Your task to perform on an android device: change keyboard looks Image 0: 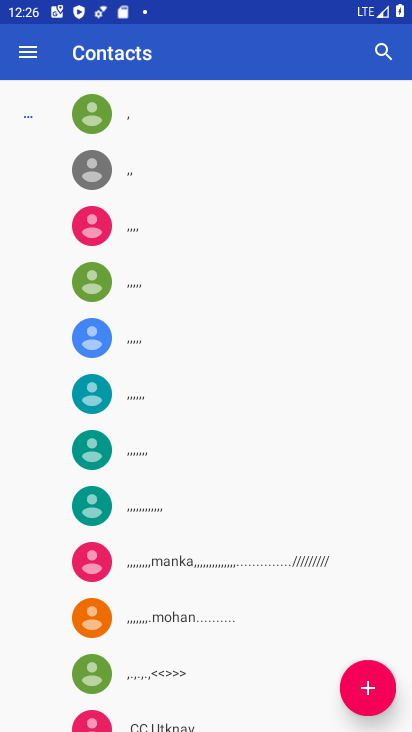
Step 0: press home button
Your task to perform on an android device: change keyboard looks Image 1: 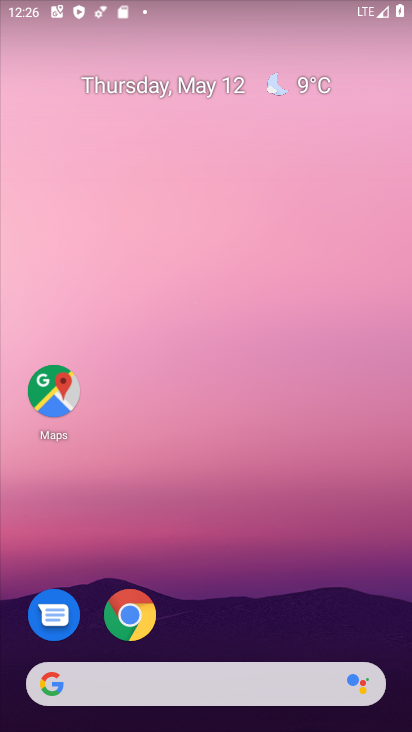
Step 1: drag from (249, 578) to (215, 105)
Your task to perform on an android device: change keyboard looks Image 2: 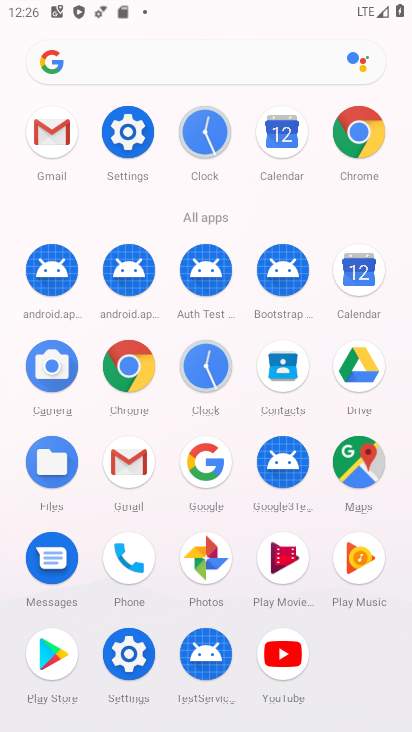
Step 2: click (124, 130)
Your task to perform on an android device: change keyboard looks Image 3: 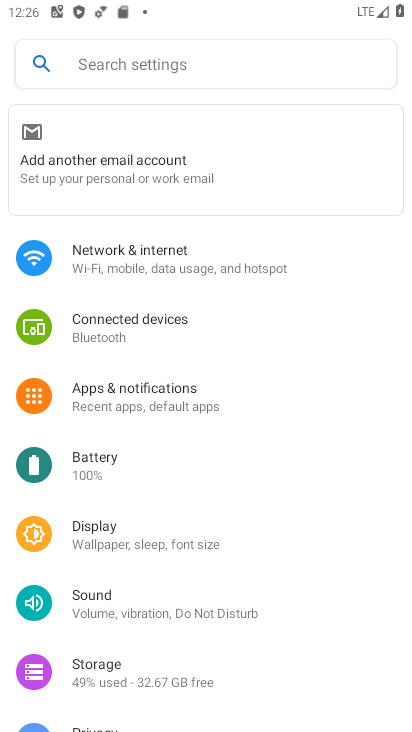
Step 3: drag from (217, 604) to (253, 349)
Your task to perform on an android device: change keyboard looks Image 4: 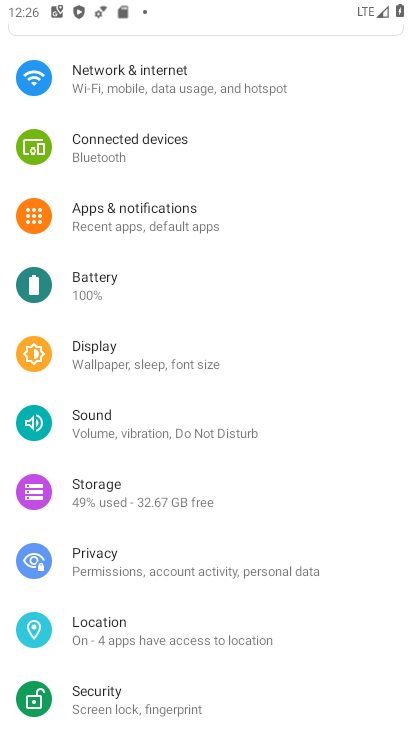
Step 4: drag from (182, 607) to (256, 405)
Your task to perform on an android device: change keyboard looks Image 5: 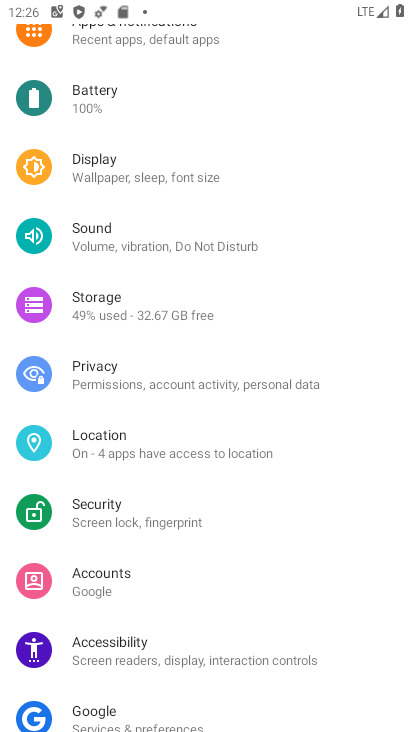
Step 5: drag from (202, 601) to (276, 425)
Your task to perform on an android device: change keyboard looks Image 6: 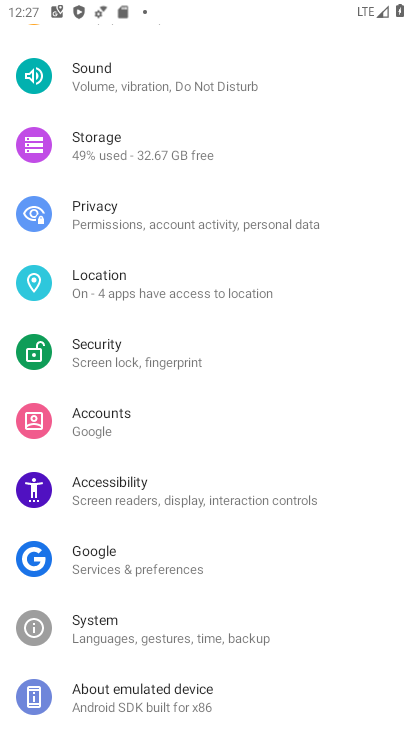
Step 6: drag from (173, 613) to (231, 501)
Your task to perform on an android device: change keyboard looks Image 7: 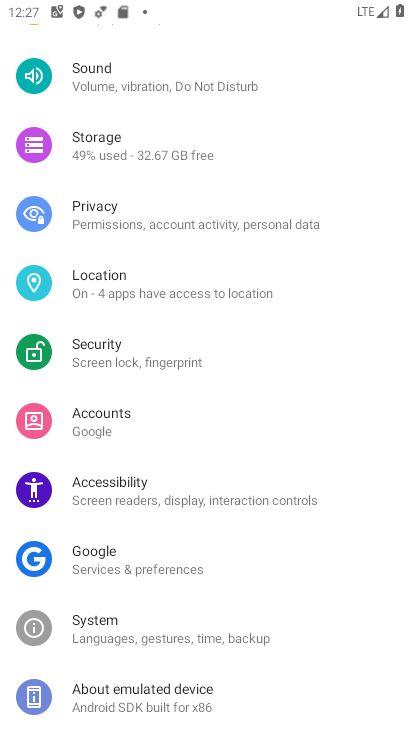
Step 7: click (129, 622)
Your task to perform on an android device: change keyboard looks Image 8: 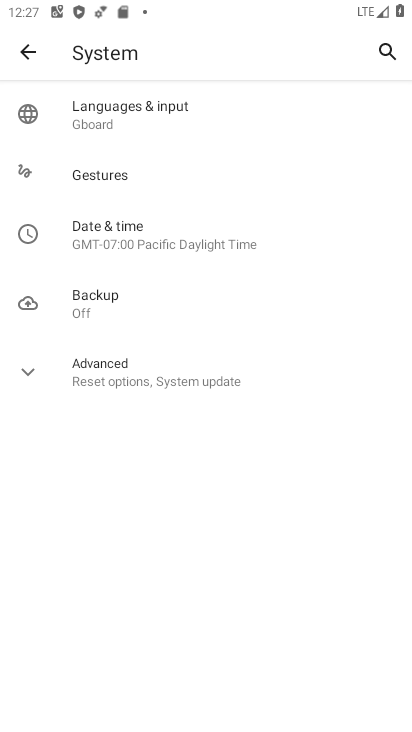
Step 8: click (105, 112)
Your task to perform on an android device: change keyboard looks Image 9: 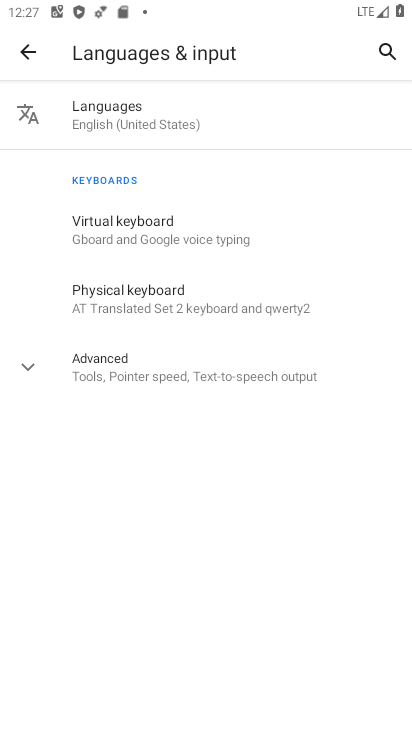
Step 9: click (152, 234)
Your task to perform on an android device: change keyboard looks Image 10: 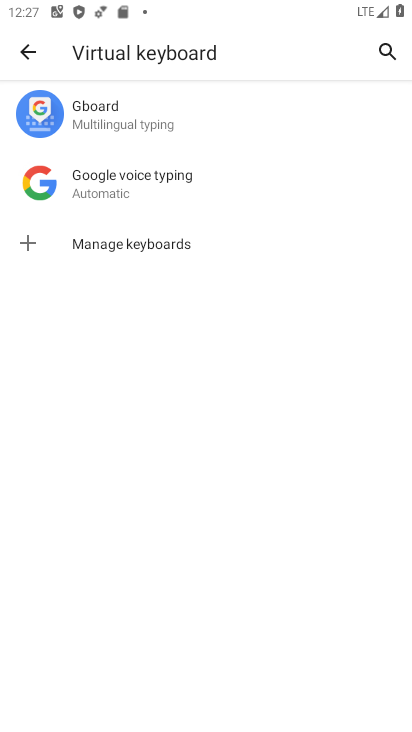
Step 10: click (108, 112)
Your task to perform on an android device: change keyboard looks Image 11: 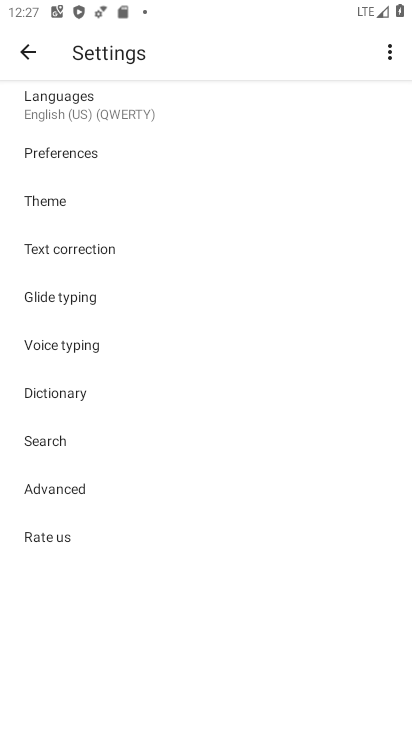
Step 11: click (59, 204)
Your task to perform on an android device: change keyboard looks Image 12: 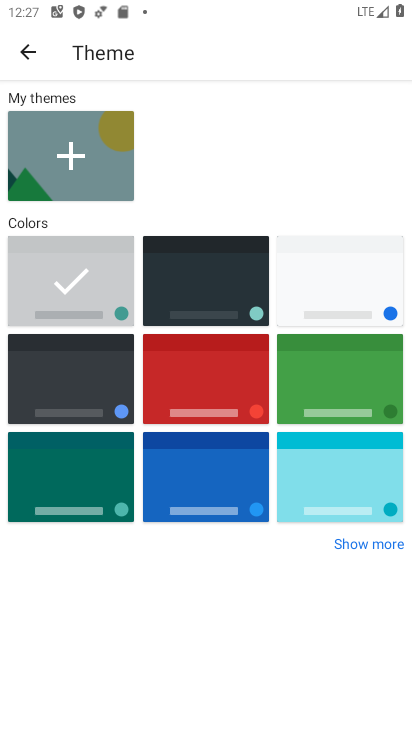
Step 12: click (336, 400)
Your task to perform on an android device: change keyboard looks Image 13: 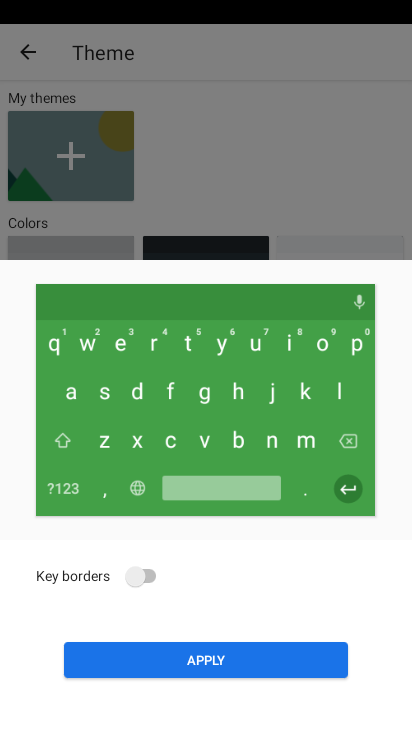
Step 13: click (131, 580)
Your task to perform on an android device: change keyboard looks Image 14: 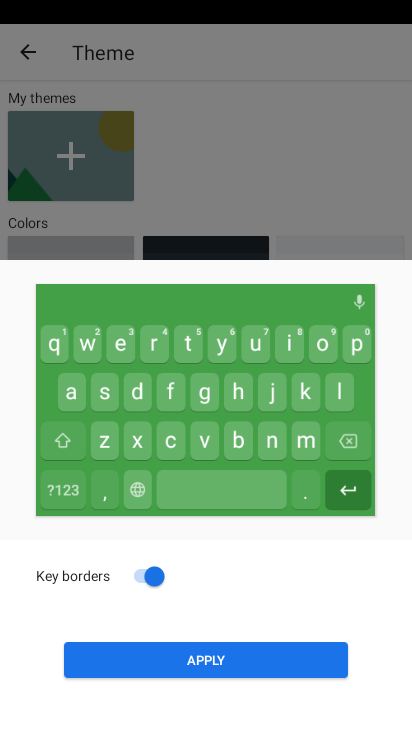
Step 14: click (198, 658)
Your task to perform on an android device: change keyboard looks Image 15: 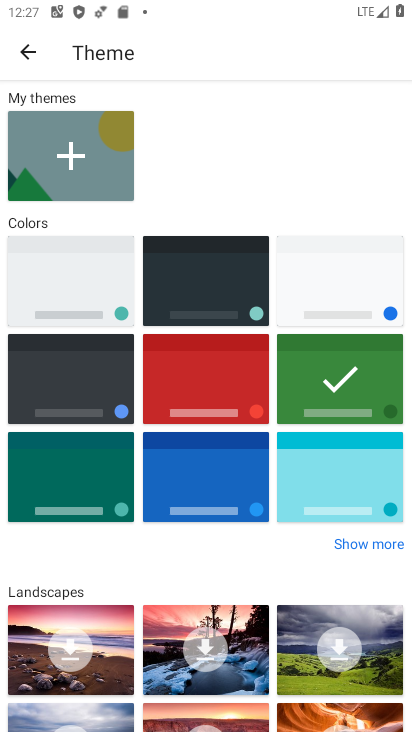
Step 15: task complete